Your task to perform on an android device: Open the map Image 0: 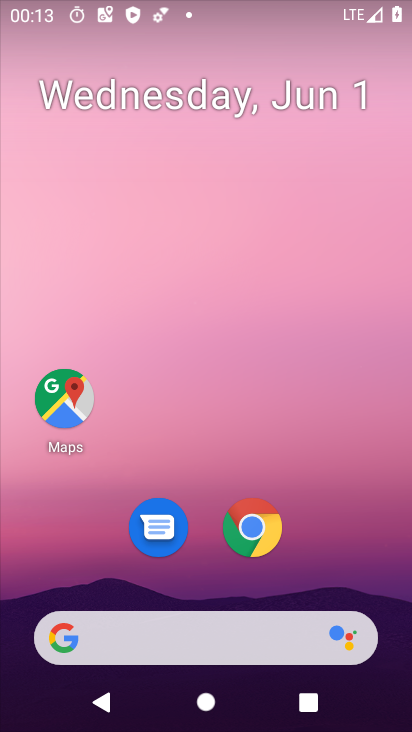
Step 0: click (270, 105)
Your task to perform on an android device: Open the map Image 1: 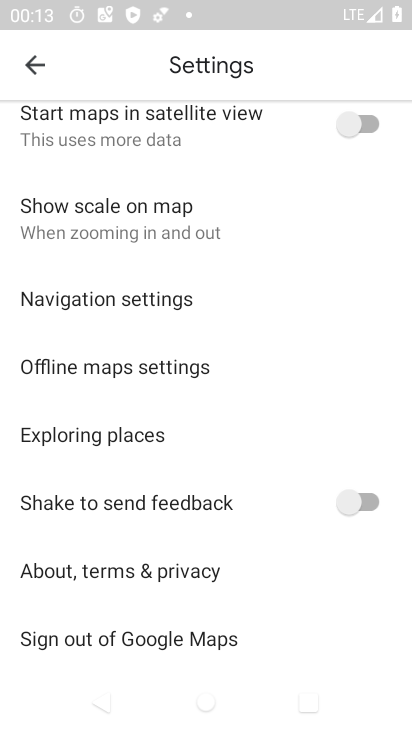
Step 1: task complete